Your task to perform on an android device: turn notification dots on Image 0: 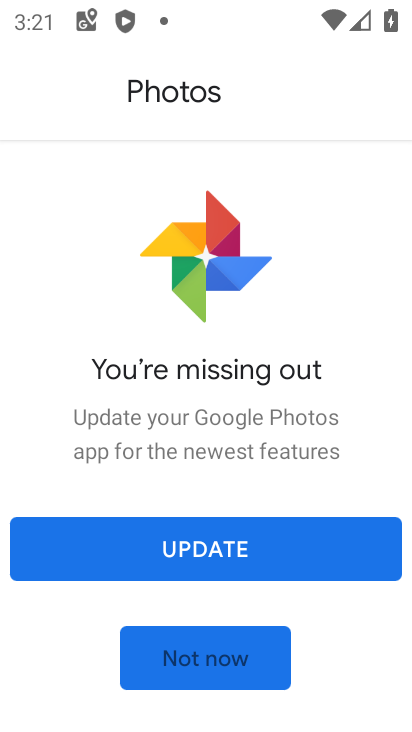
Step 0: click (198, 651)
Your task to perform on an android device: turn notification dots on Image 1: 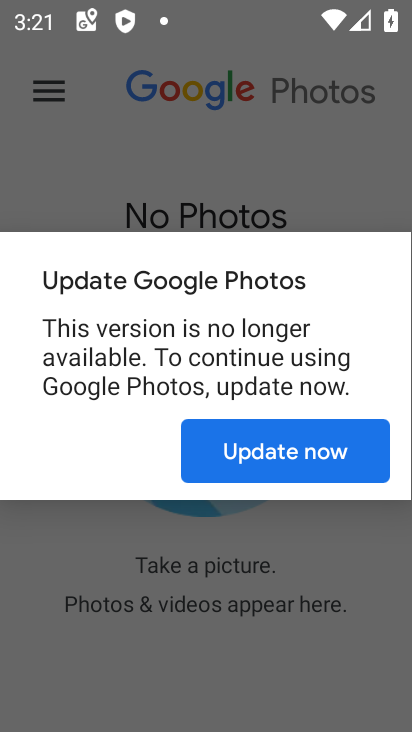
Step 1: click (283, 459)
Your task to perform on an android device: turn notification dots on Image 2: 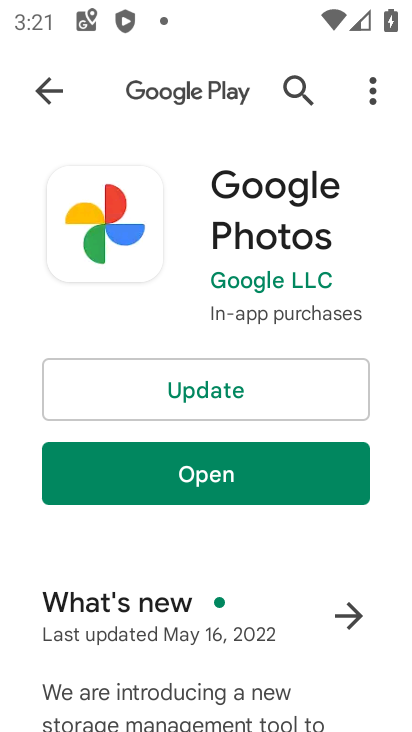
Step 2: press back button
Your task to perform on an android device: turn notification dots on Image 3: 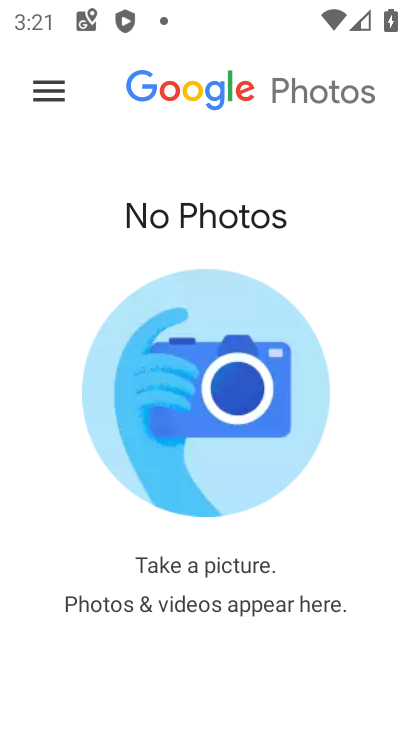
Step 3: press home button
Your task to perform on an android device: turn notification dots on Image 4: 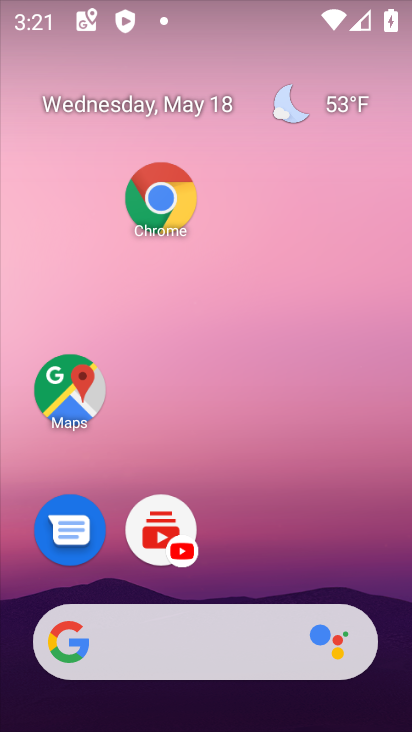
Step 4: drag from (246, 623) to (199, 160)
Your task to perform on an android device: turn notification dots on Image 5: 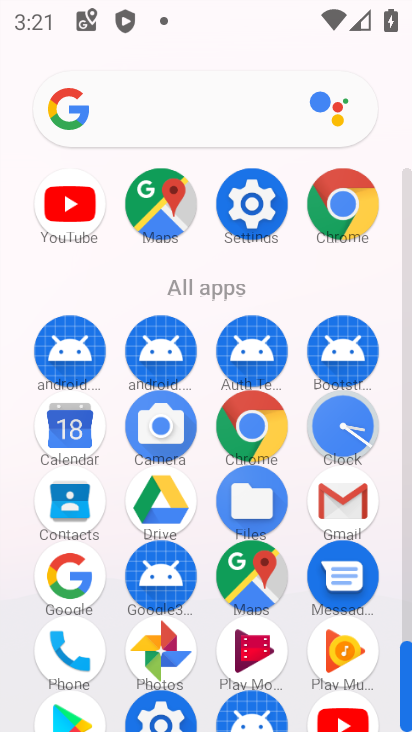
Step 5: drag from (291, 645) to (312, 321)
Your task to perform on an android device: turn notification dots on Image 6: 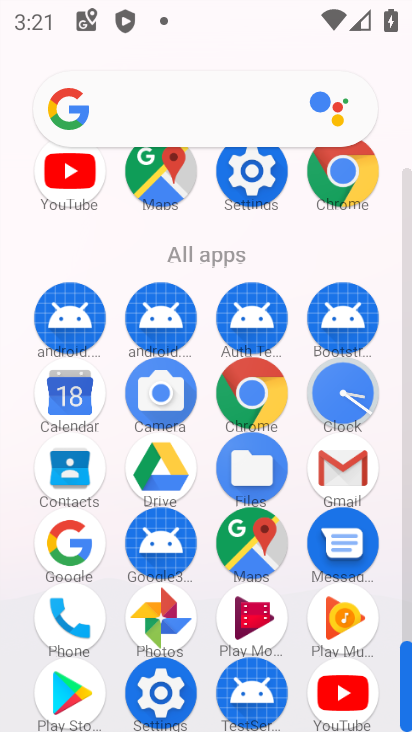
Step 6: click (243, 191)
Your task to perform on an android device: turn notification dots on Image 7: 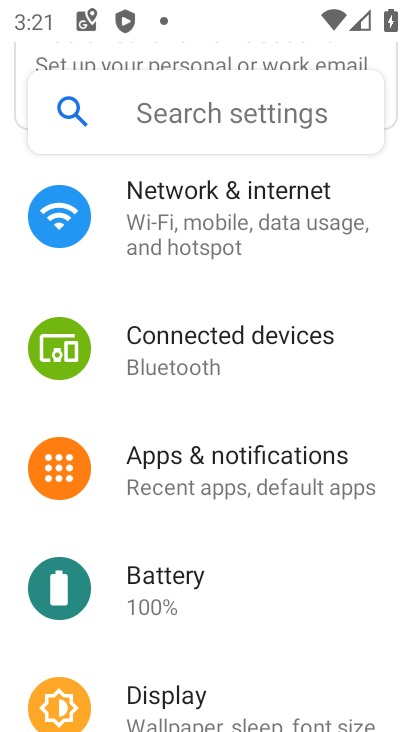
Step 7: click (244, 468)
Your task to perform on an android device: turn notification dots on Image 8: 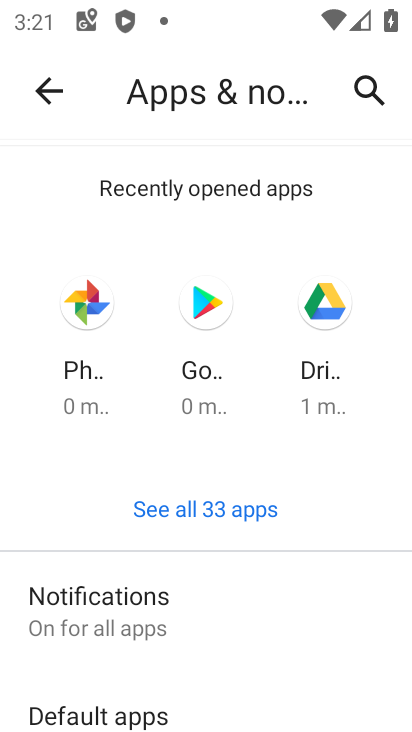
Step 8: click (111, 607)
Your task to perform on an android device: turn notification dots on Image 9: 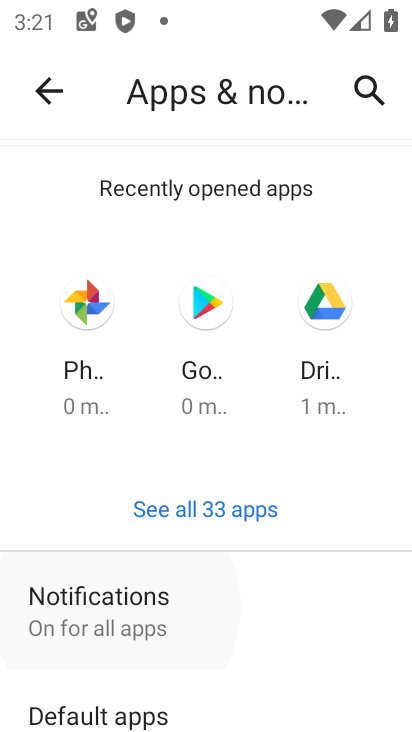
Step 9: click (114, 607)
Your task to perform on an android device: turn notification dots on Image 10: 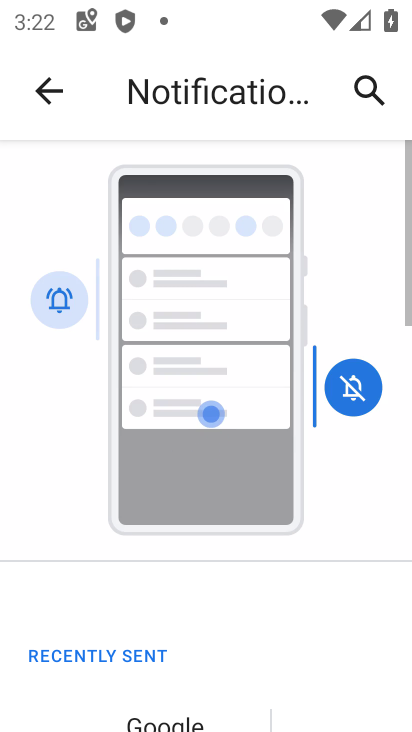
Step 10: drag from (193, 596) to (260, 243)
Your task to perform on an android device: turn notification dots on Image 11: 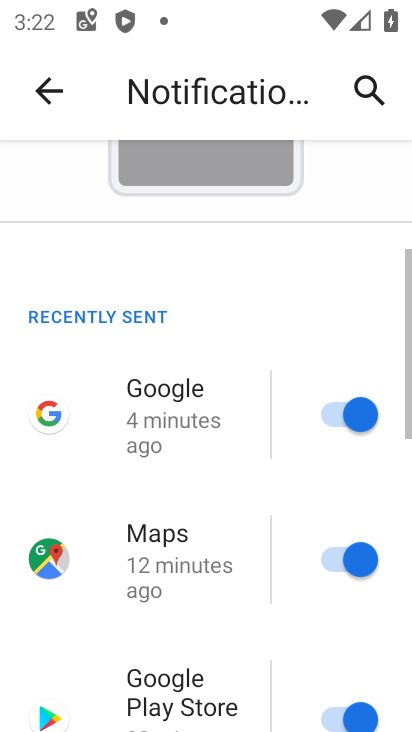
Step 11: drag from (278, 532) to (271, 146)
Your task to perform on an android device: turn notification dots on Image 12: 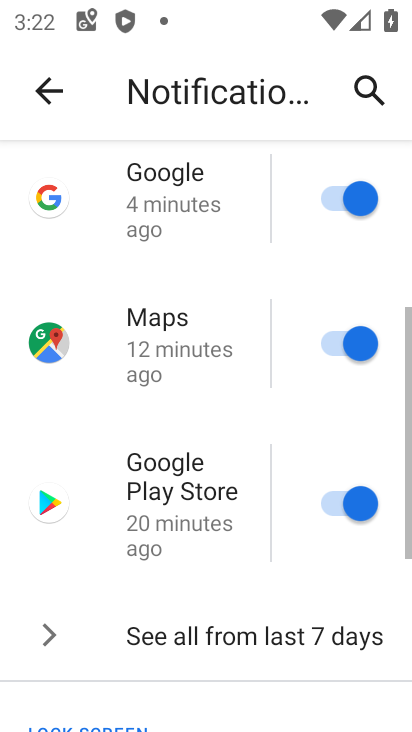
Step 12: drag from (258, 500) to (262, 107)
Your task to perform on an android device: turn notification dots on Image 13: 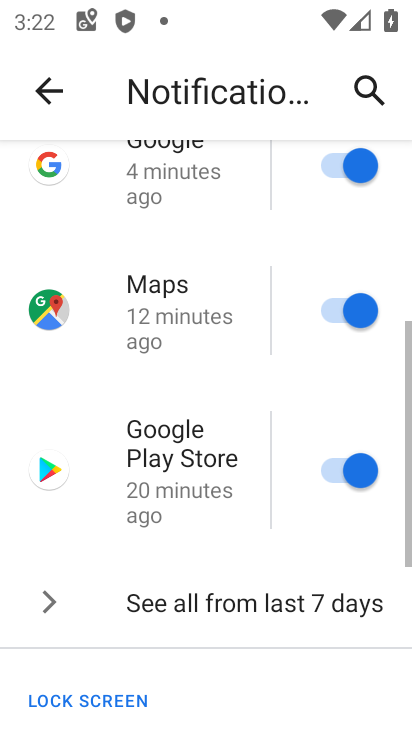
Step 13: drag from (237, 488) to (233, 168)
Your task to perform on an android device: turn notification dots on Image 14: 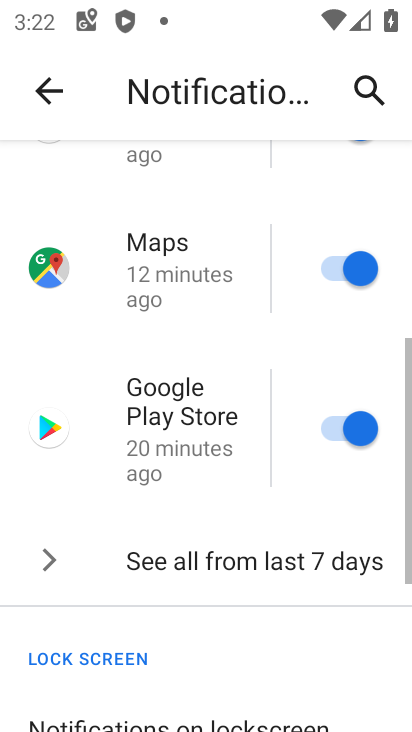
Step 14: drag from (225, 395) to (251, 80)
Your task to perform on an android device: turn notification dots on Image 15: 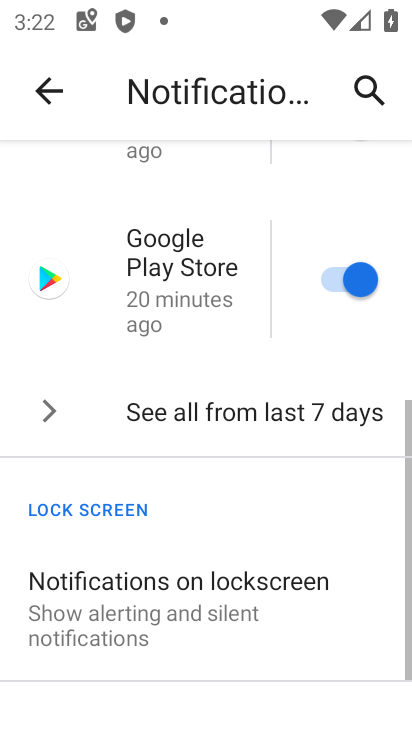
Step 15: drag from (217, 464) to (250, 126)
Your task to perform on an android device: turn notification dots on Image 16: 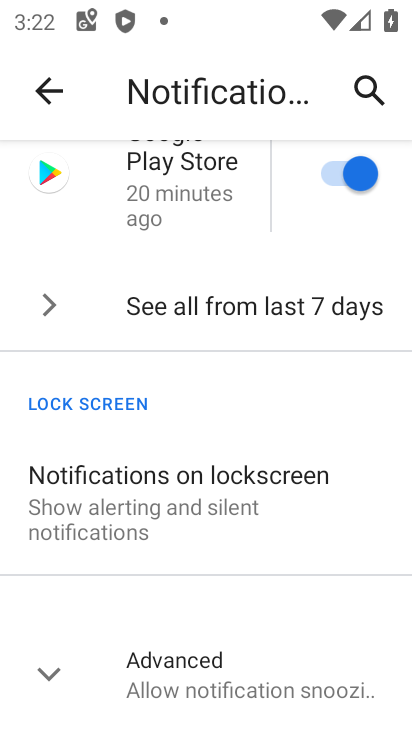
Step 16: click (180, 680)
Your task to perform on an android device: turn notification dots on Image 17: 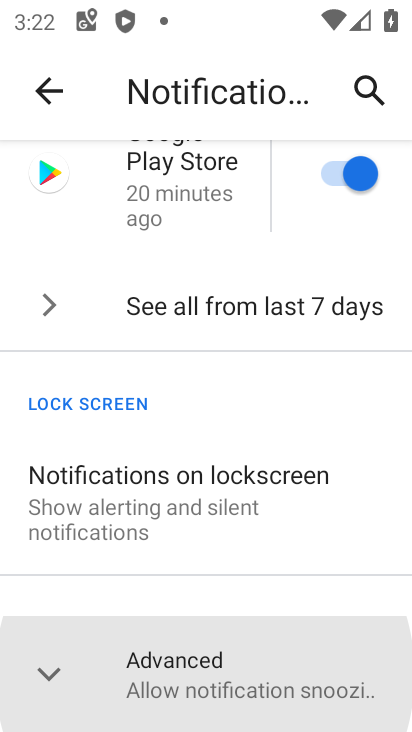
Step 17: click (181, 681)
Your task to perform on an android device: turn notification dots on Image 18: 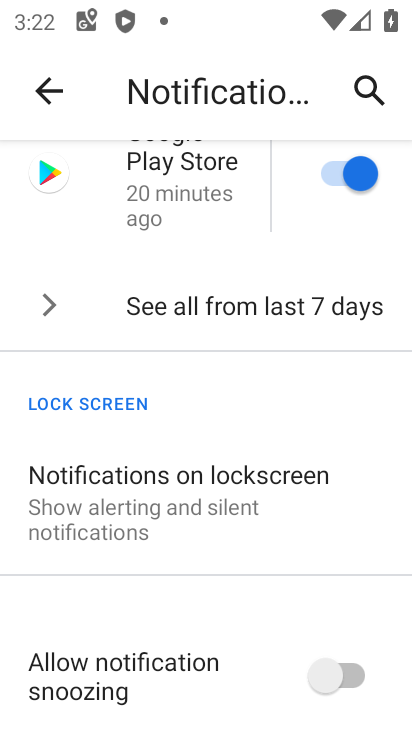
Step 18: task complete